Your task to perform on an android device: Open maps Image 0: 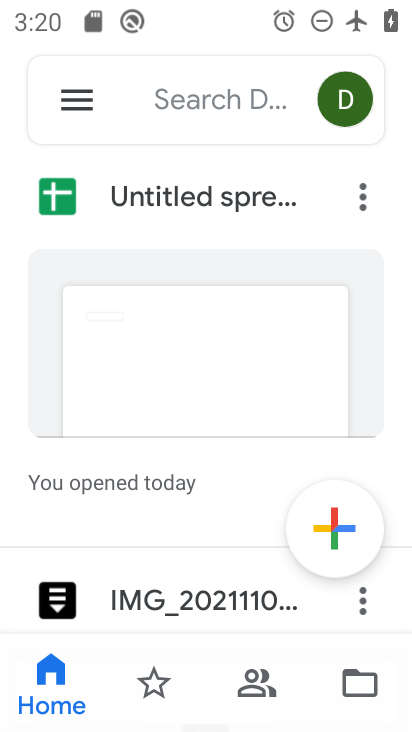
Step 0: press home button
Your task to perform on an android device: Open maps Image 1: 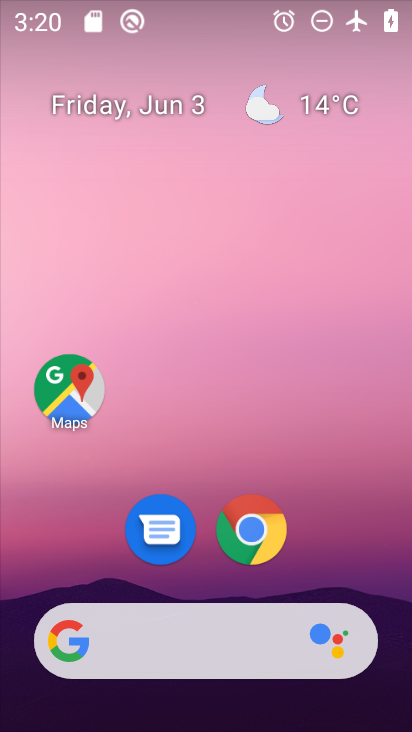
Step 1: drag from (323, 563) to (329, 200)
Your task to perform on an android device: Open maps Image 2: 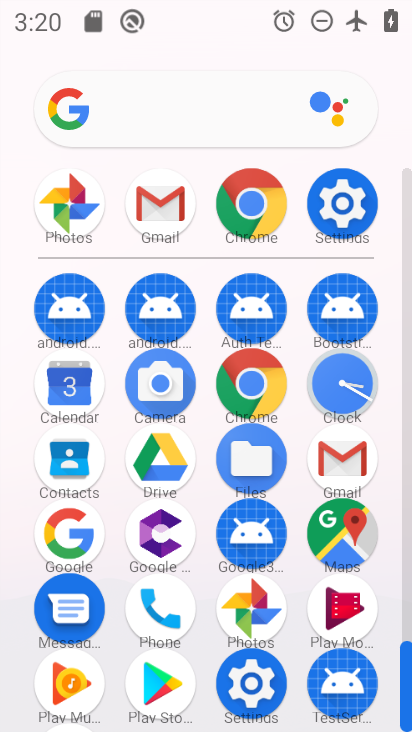
Step 2: click (340, 540)
Your task to perform on an android device: Open maps Image 3: 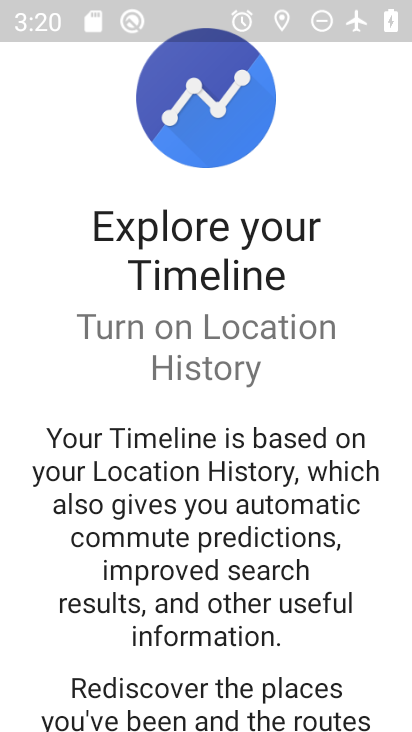
Step 3: task complete